Your task to perform on an android device: uninstall "Skype" Image 0: 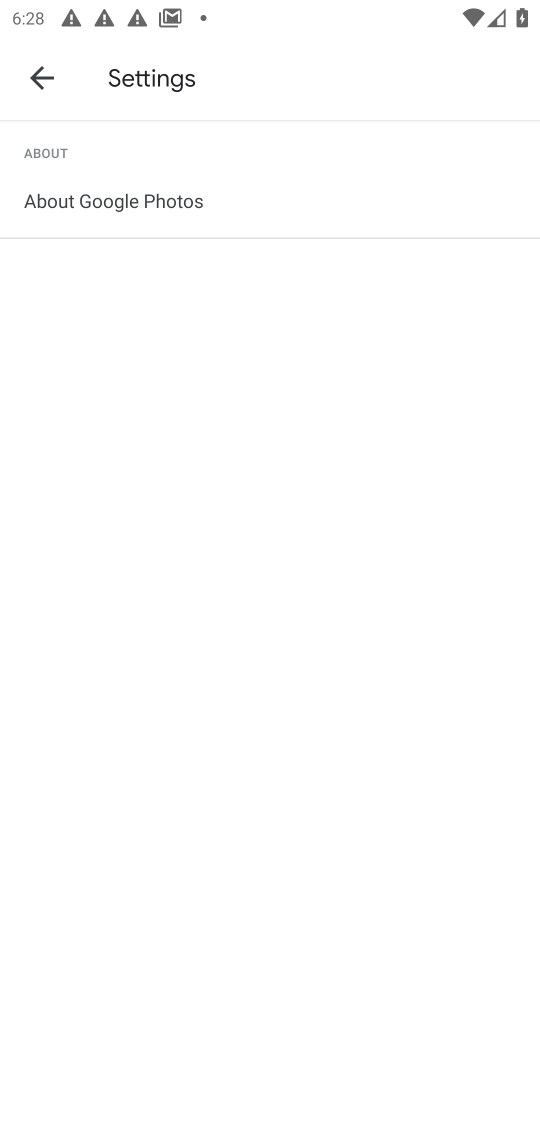
Step 0: press back button
Your task to perform on an android device: uninstall "Skype" Image 1: 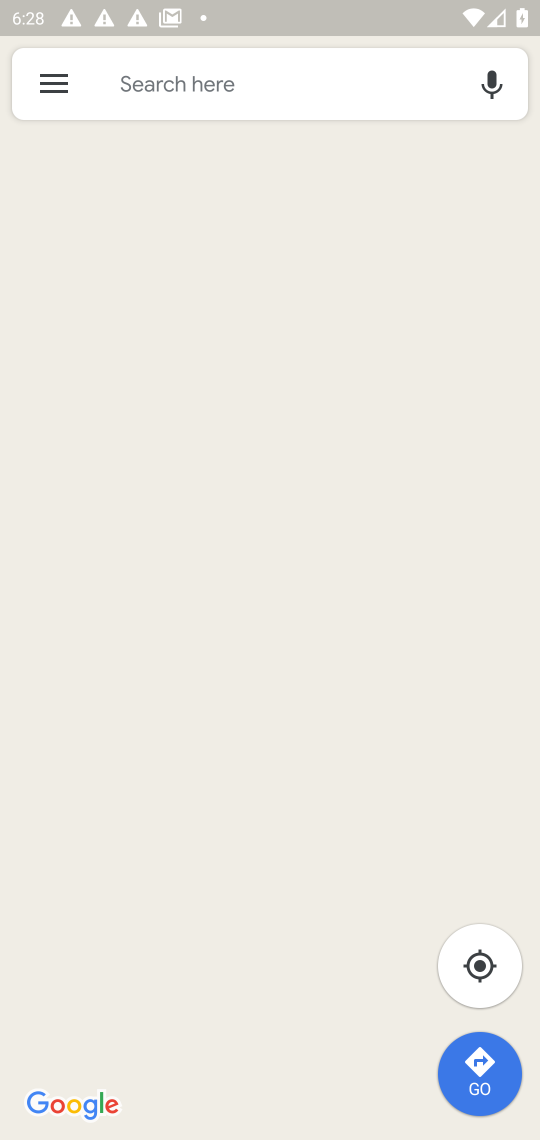
Step 1: press back button
Your task to perform on an android device: uninstall "Skype" Image 2: 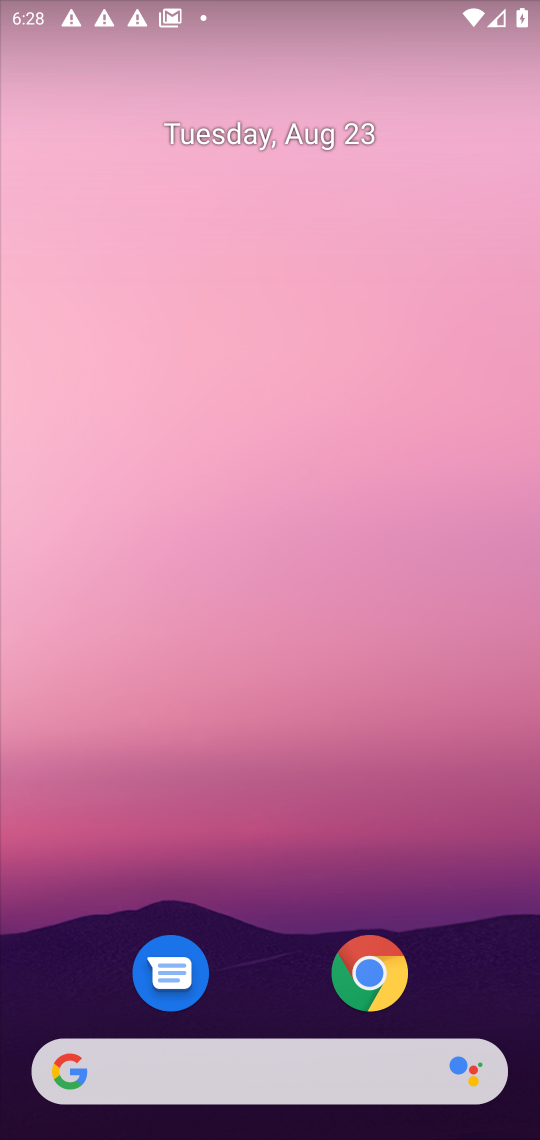
Step 2: press home button
Your task to perform on an android device: uninstall "Skype" Image 3: 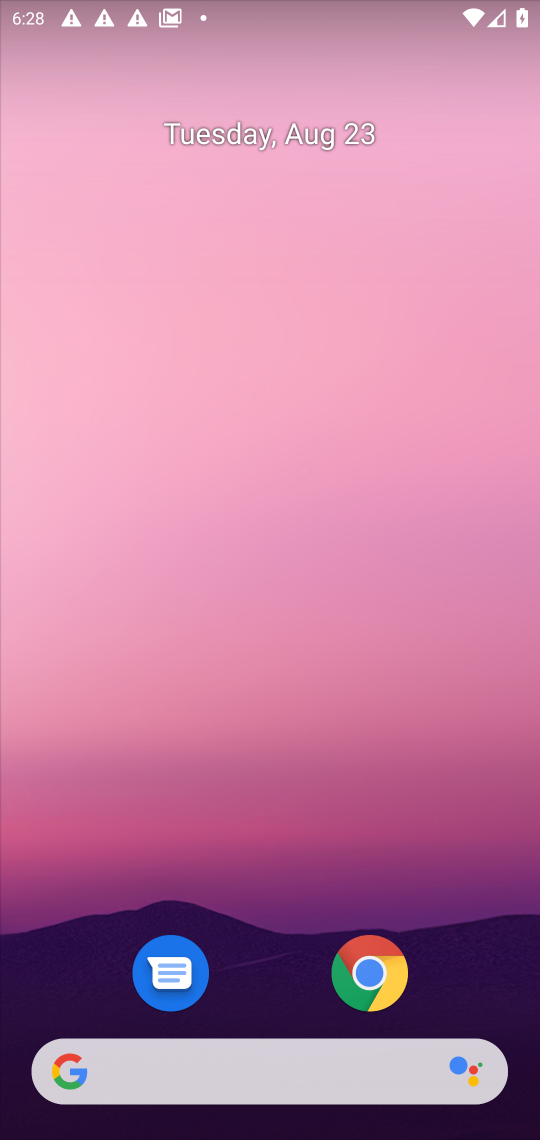
Step 3: drag from (249, 963) to (427, 75)
Your task to perform on an android device: uninstall "Skype" Image 4: 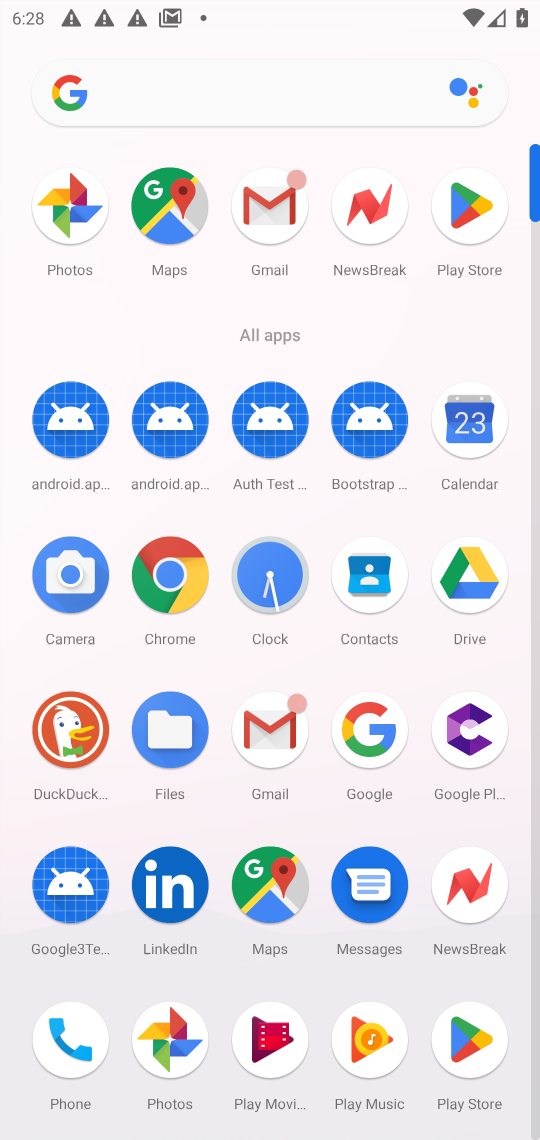
Step 4: click (485, 199)
Your task to perform on an android device: uninstall "Skype" Image 5: 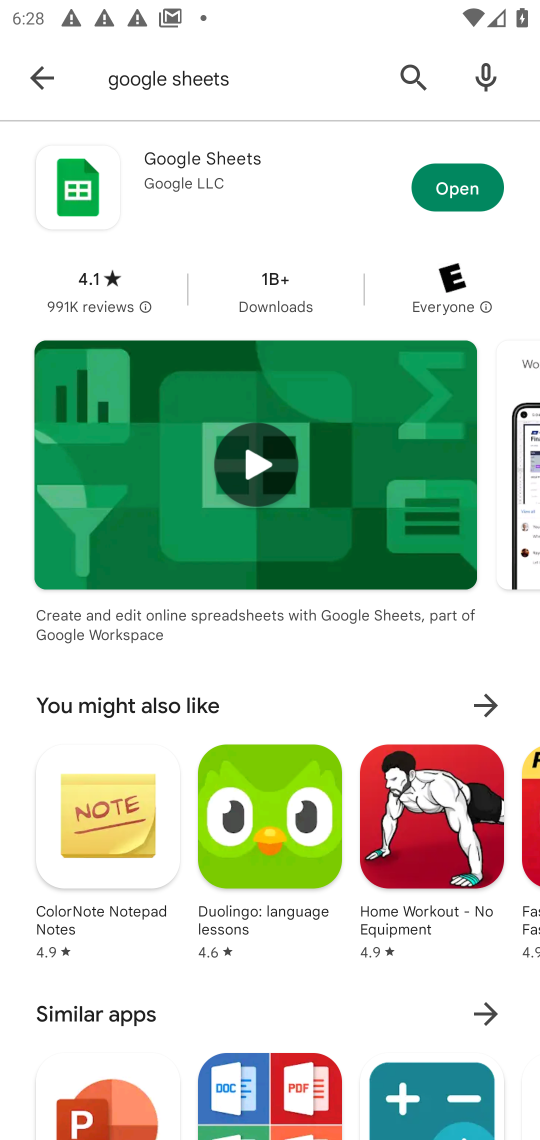
Step 5: click (388, 75)
Your task to perform on an android device: uninstall "Skype" Image 6: 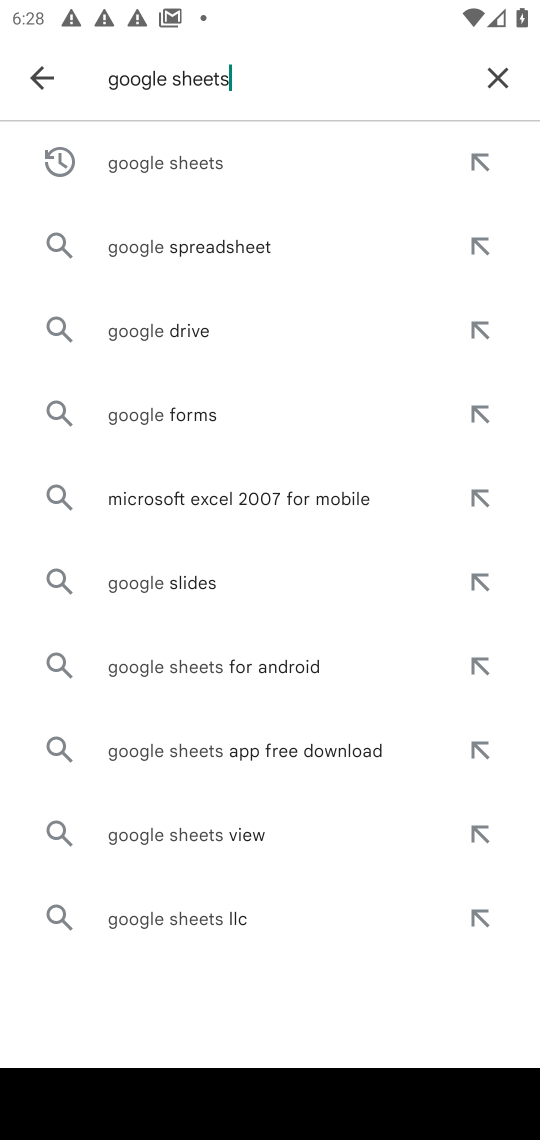
Step 6: click (478, 72)
Your task to perform on an android device: uninstall "Skype" Image 7: 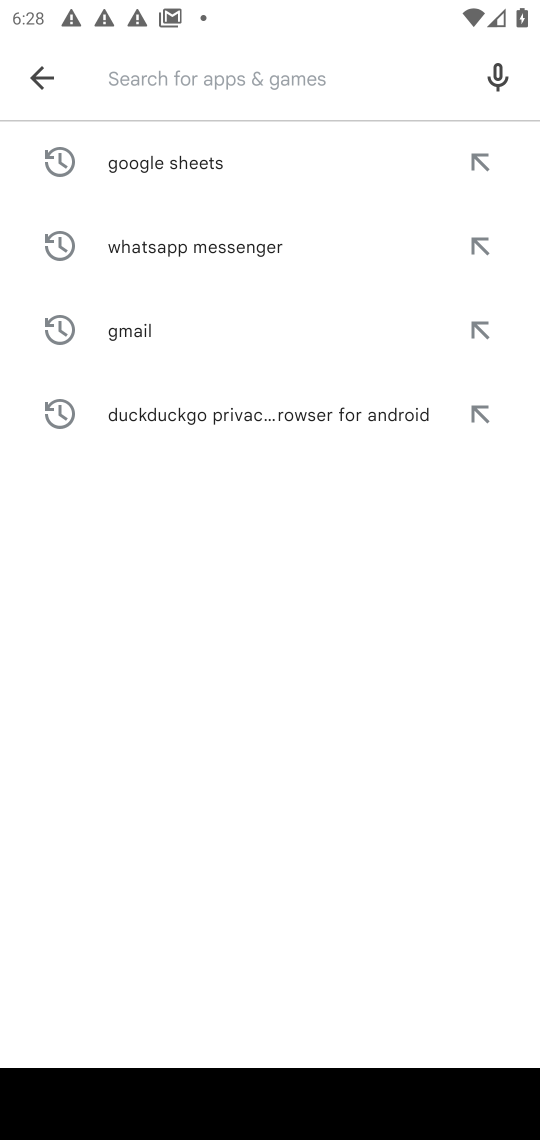
Step 7: click (150, 68)
Your task to perform on an android device: uninstall "Skype" Image 8: 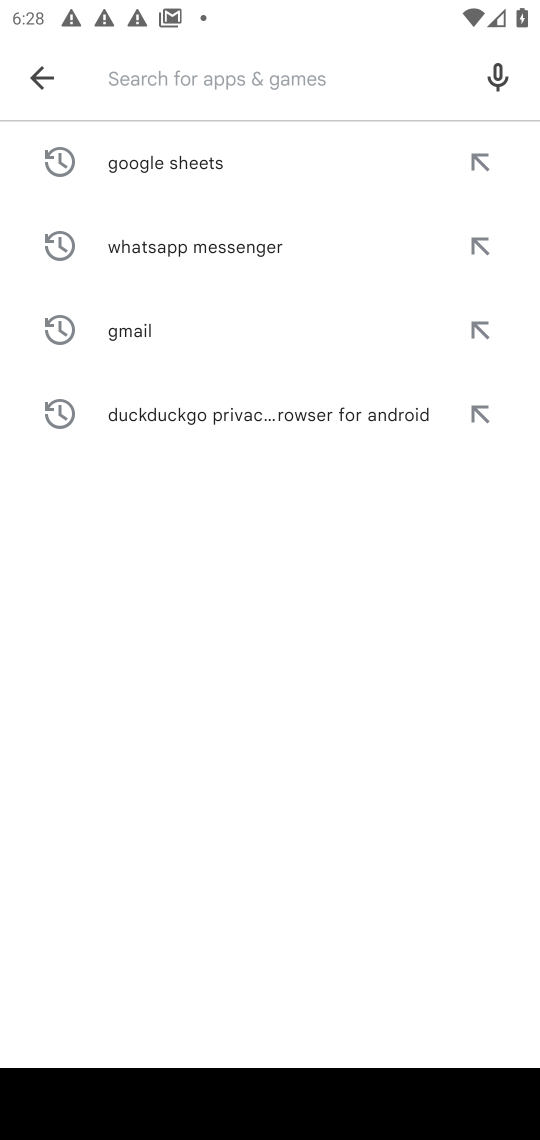
Step 8: type "Skype"
Your task to perform on an android device: uninstall "Skype" Image 9: 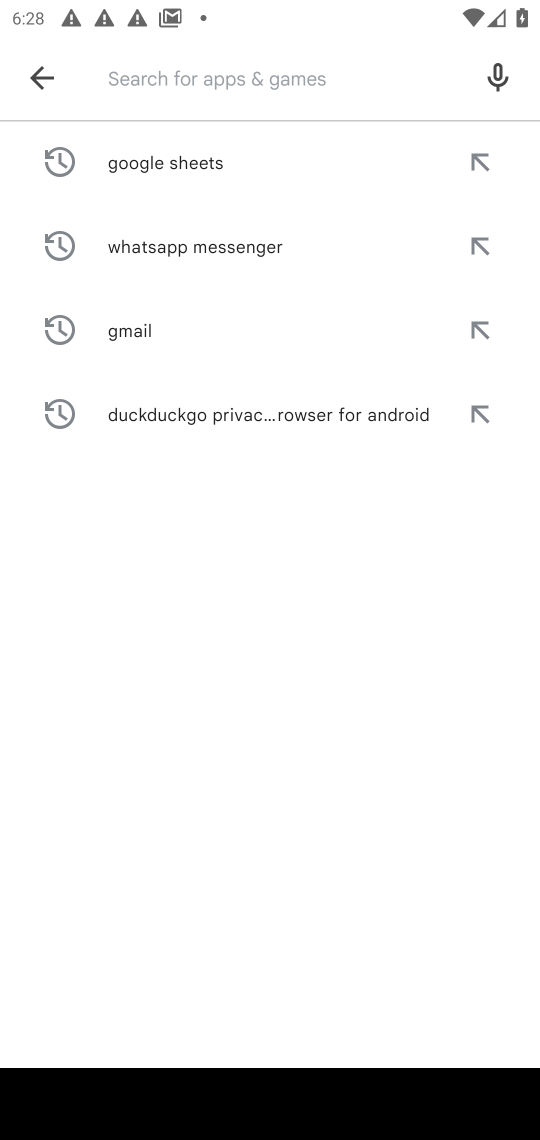
Step 9: click (317, 691)
Your task to perform on an android device: uninstall "Skype" Image 10: 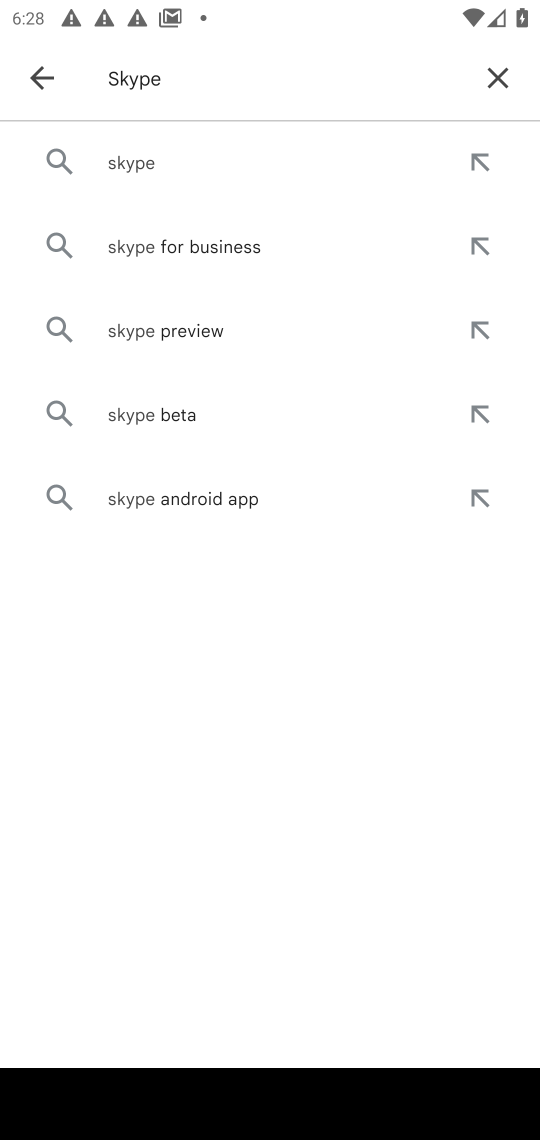
Step 10: click (148, 160)
Your task to perform on an android device: uninstall "Skype" Image 11: 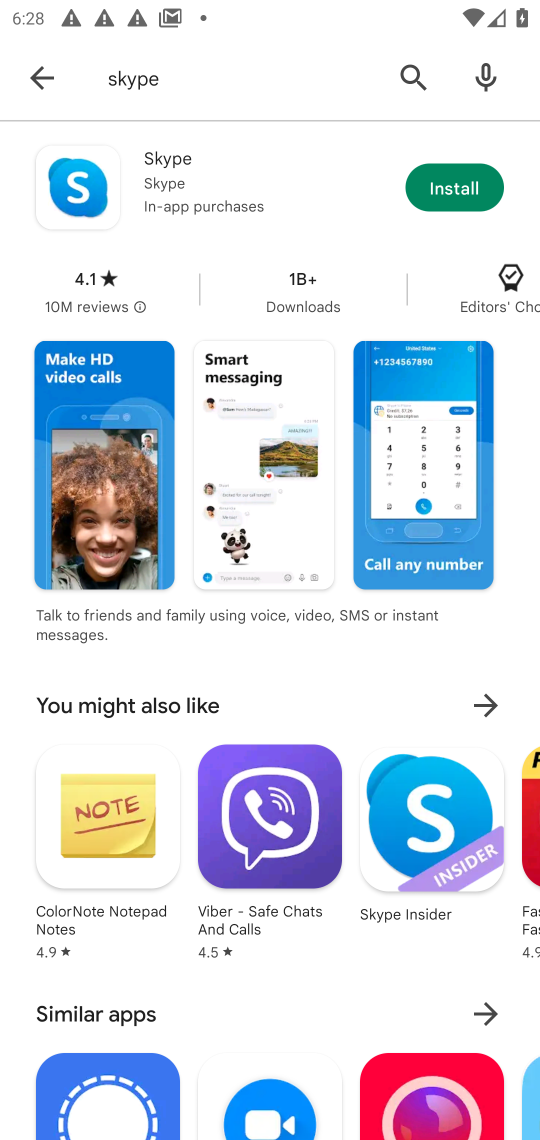
Step 11: click (276, 166)
Your task to perform on an android device: uninstall "Skype" Image 12: 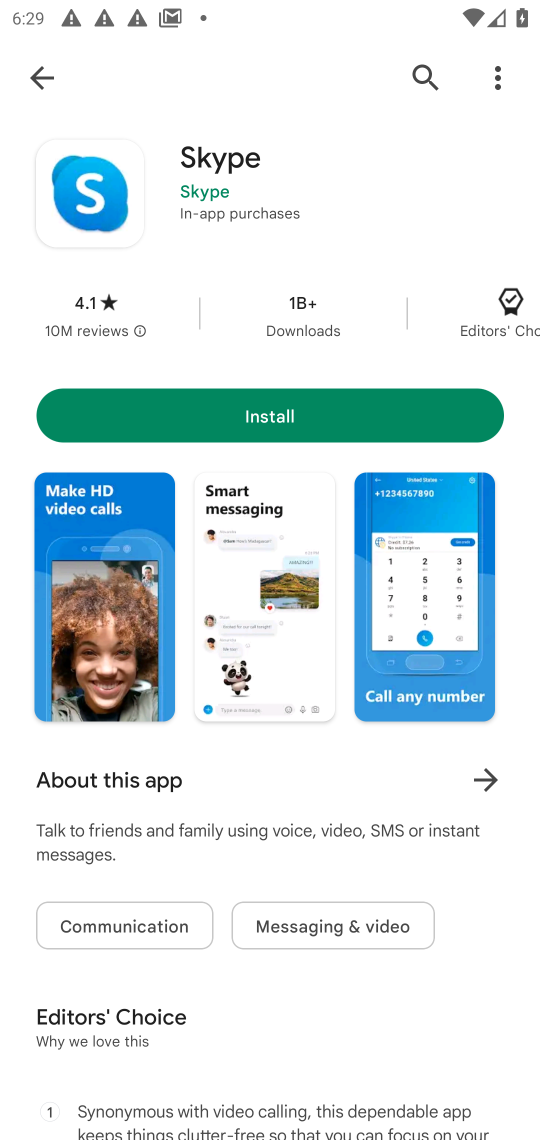
Step 12: task complete